Your task to perform on an android device: turn off airplane mode Image 0: 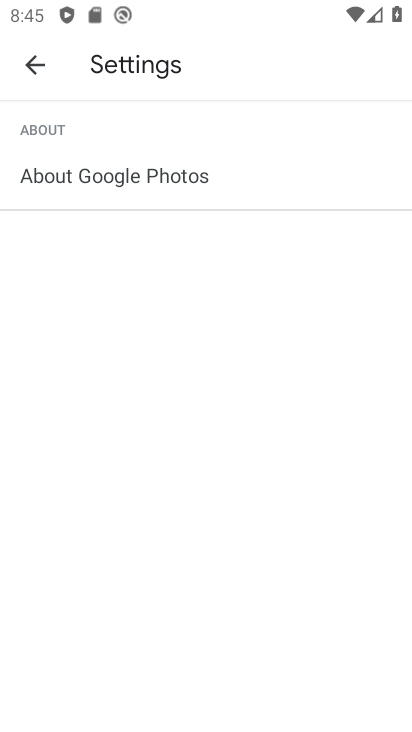
Step 0: press home button
Your task to perform on an android device: turn off airplane mode Image 1: 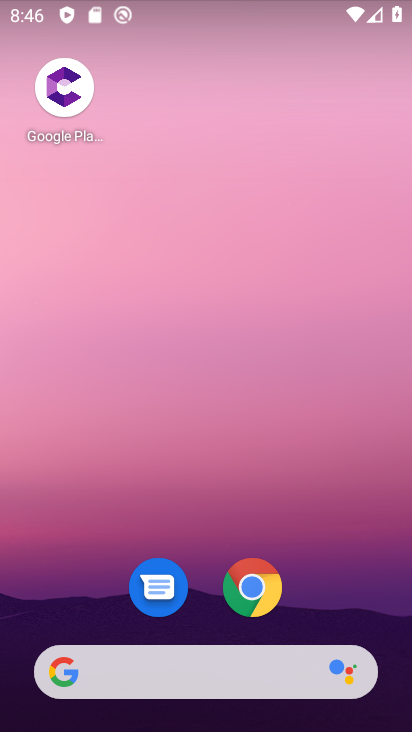
Step 1: drag from (373, 621) to (303, 5)
Your task to perform on an android device: turn off airplane mode Image 2: 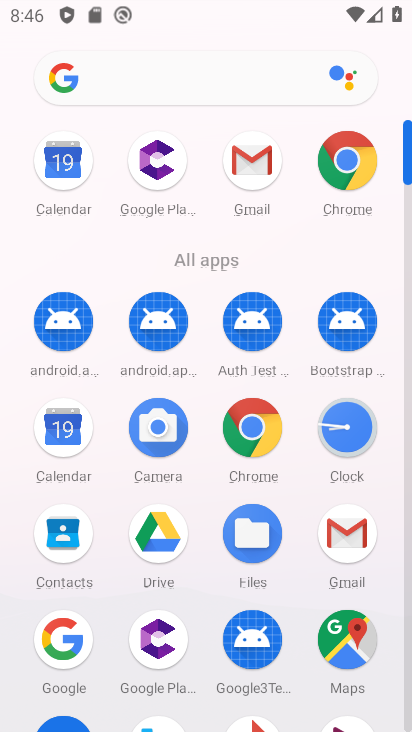
Step 2: drag from (404, 470) to (403, 424)
Your task to perform on an android device: turn off airplane mode Image 3: 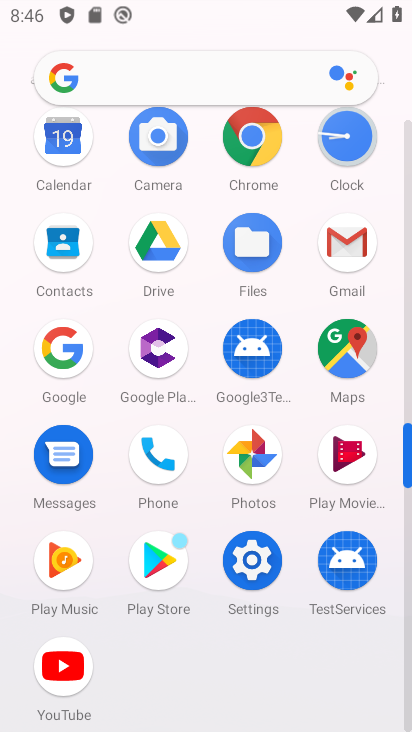
Step 3: click (257, 565)
Your task to perform on an android device: turn off airplane mode Image 4: 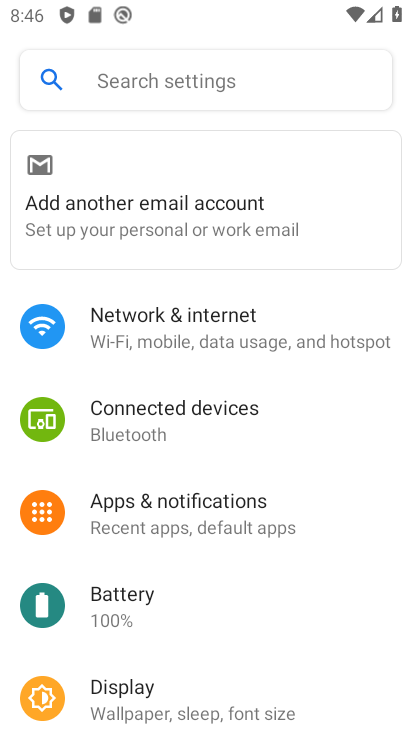
Step 4: click (190, 341)
Your task to perform on an android device: turn off airplane mode Image 5: 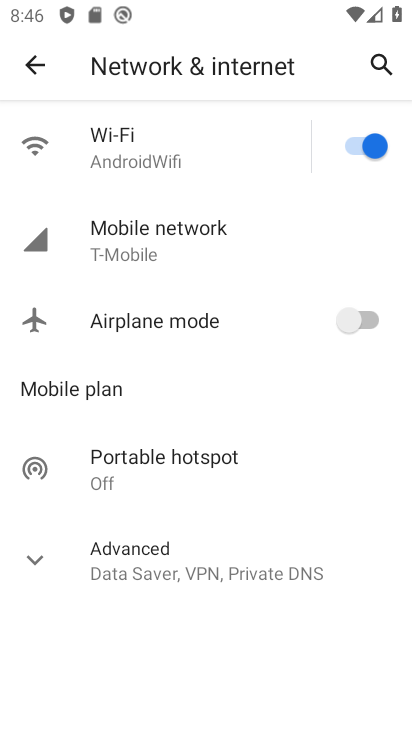
Step 5: task complete